Your task to perform on an android device: Go to settings Image 0: 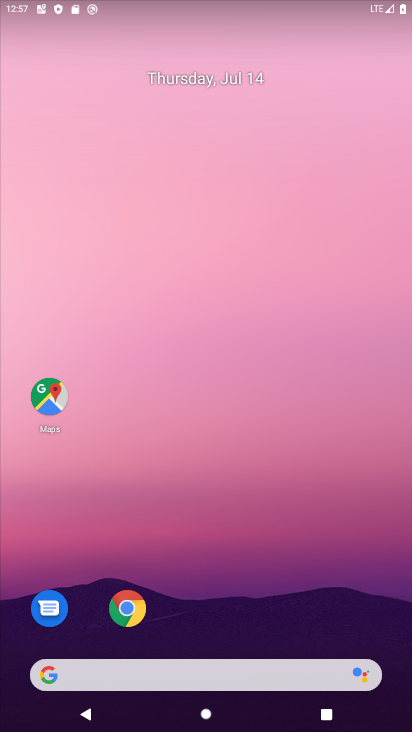
Step 0: drag from (23, 608) to (313, 93)
Your task to perform on an android device: Go to settings Image 1: 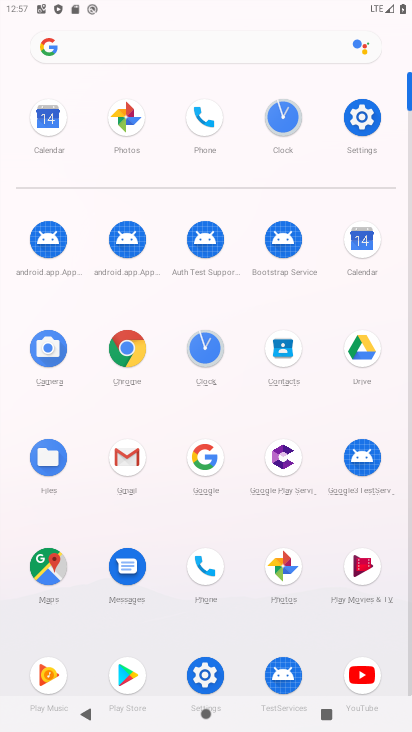
Step 1: click (352, 128)
Your task to perform on an android device: Go to settings Image 2: 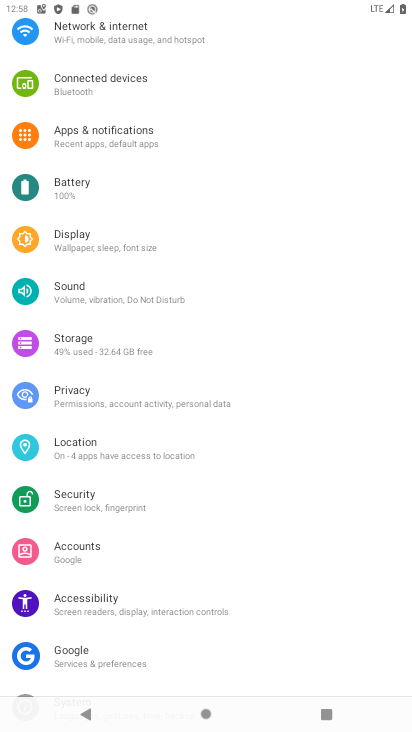
Step 2: task complete